Your task to perform on an android device: change text size in settings app Image 0: 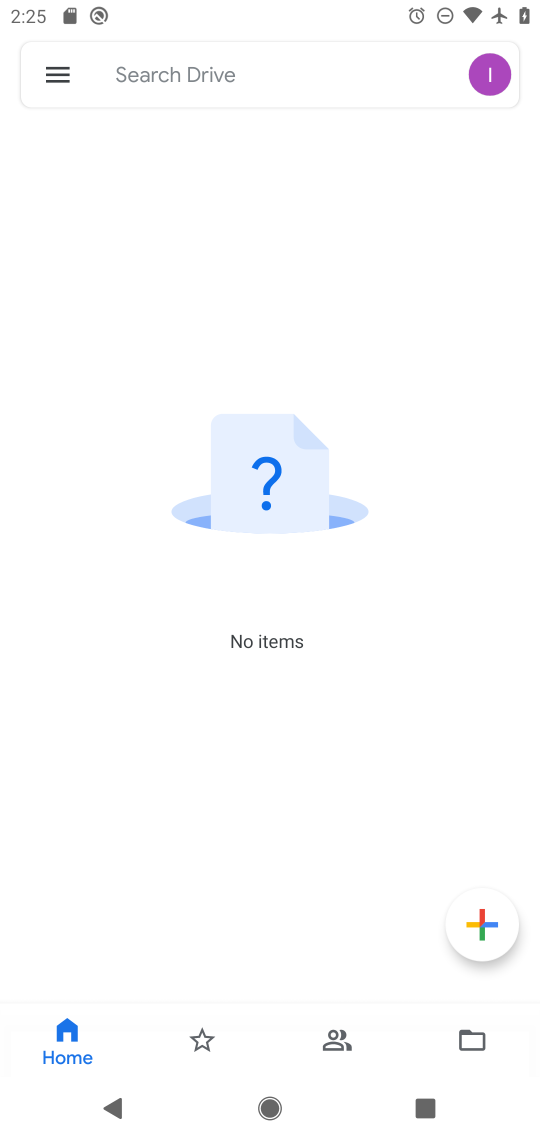
Step 0: press home button
Your task to perform on an android device: change text size in settings app Image 1: 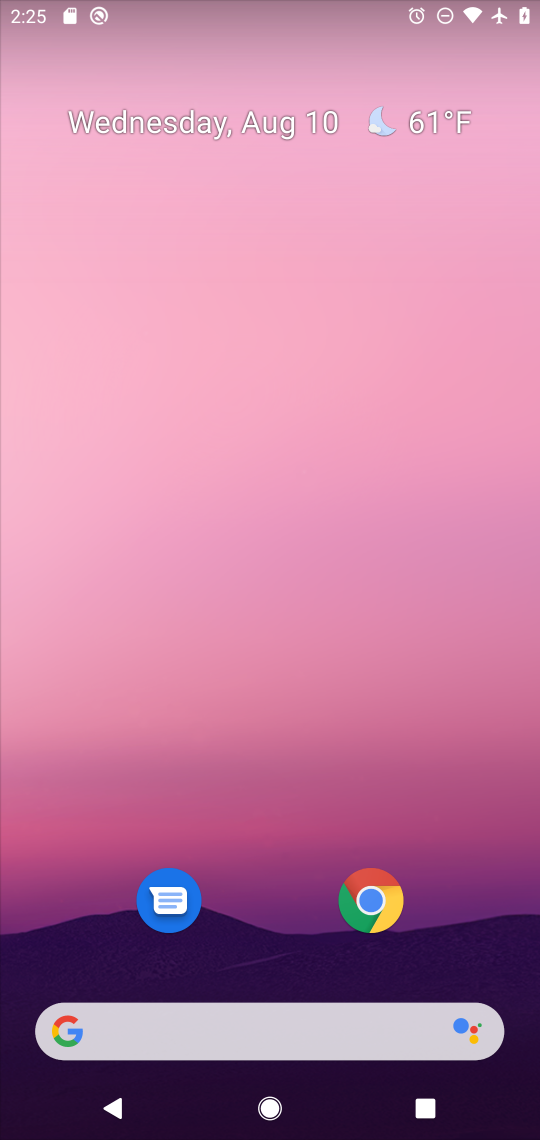
Step 1: drag from (268, 843) to (231, 4)
Your task to perform on an android device: change text size in settings app Image 2: 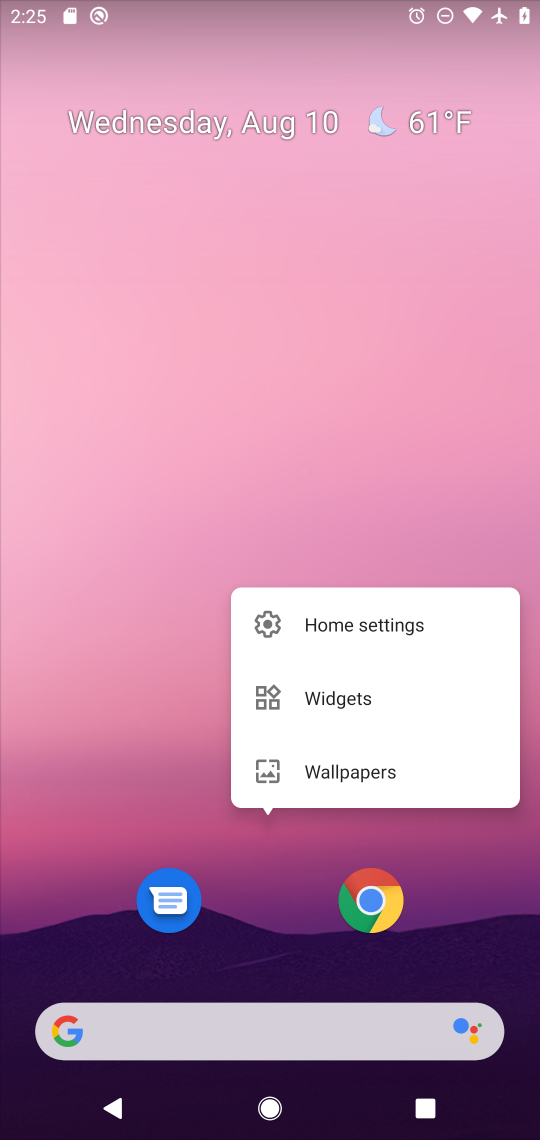
Step 2: click (204, 385)
Your task to perform on an android device: change text size in settings app Image 3: 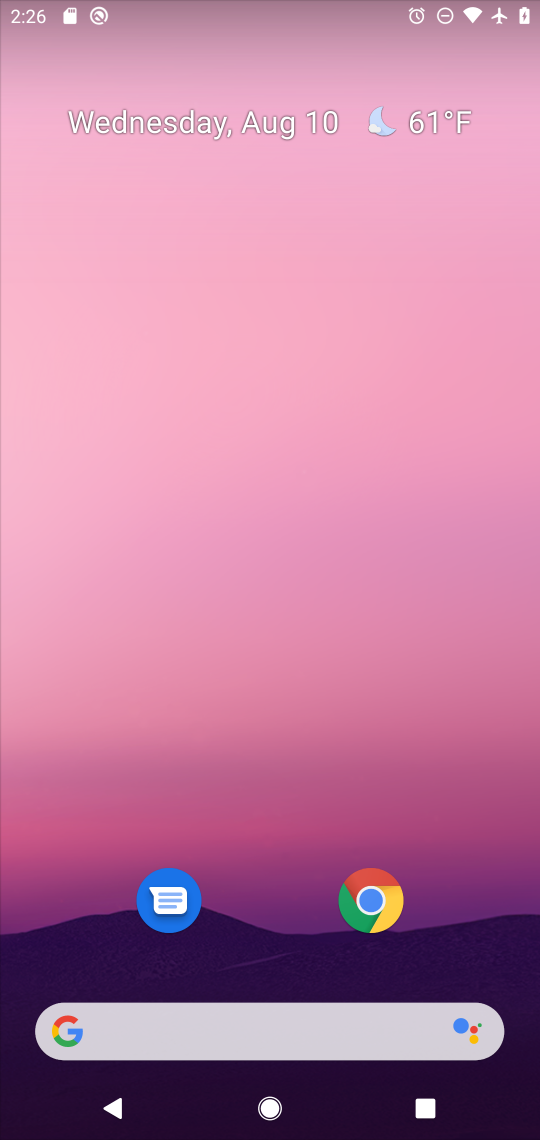
Step 3: drag from (242, 903) to (306, 0)
Your task to perform on an android device: change text size in settings app Image 4: 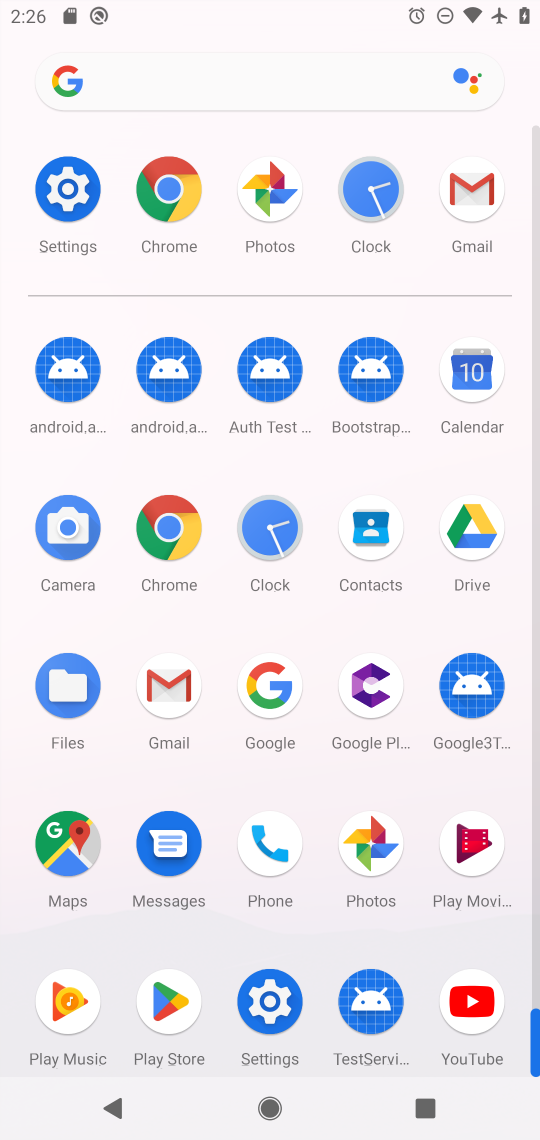
Step 4: click (76, 184)
Your task to perform on an android device: change text size in settings app Image 5: 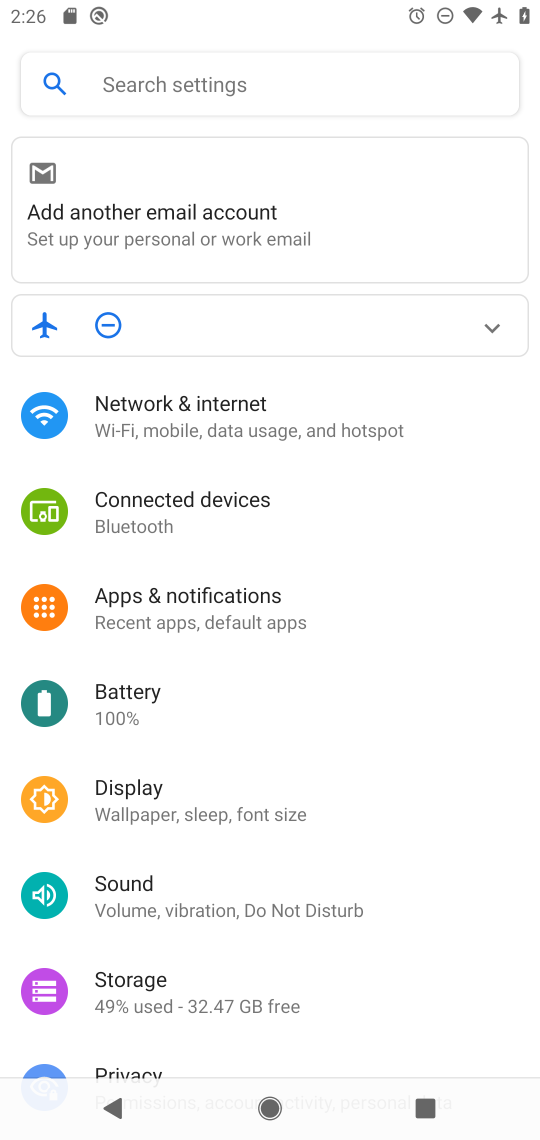
Step 5: click (162, 799)
Your task to perform on an android device: change text size in settings app Image 6: 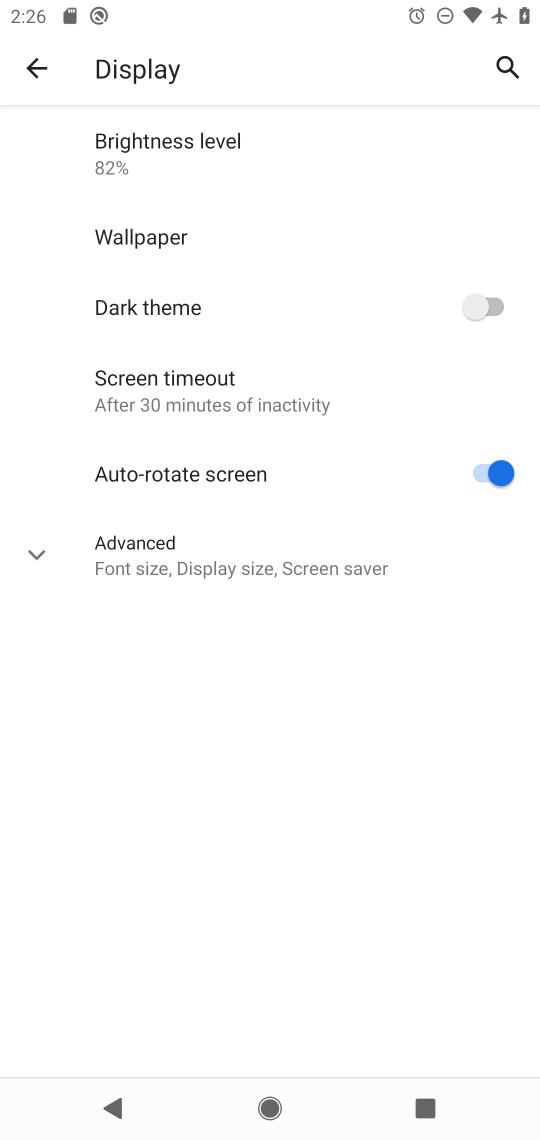
Step 6: click (33, 552)
Your task to perform on an android device: change text size in settings app Image 7: 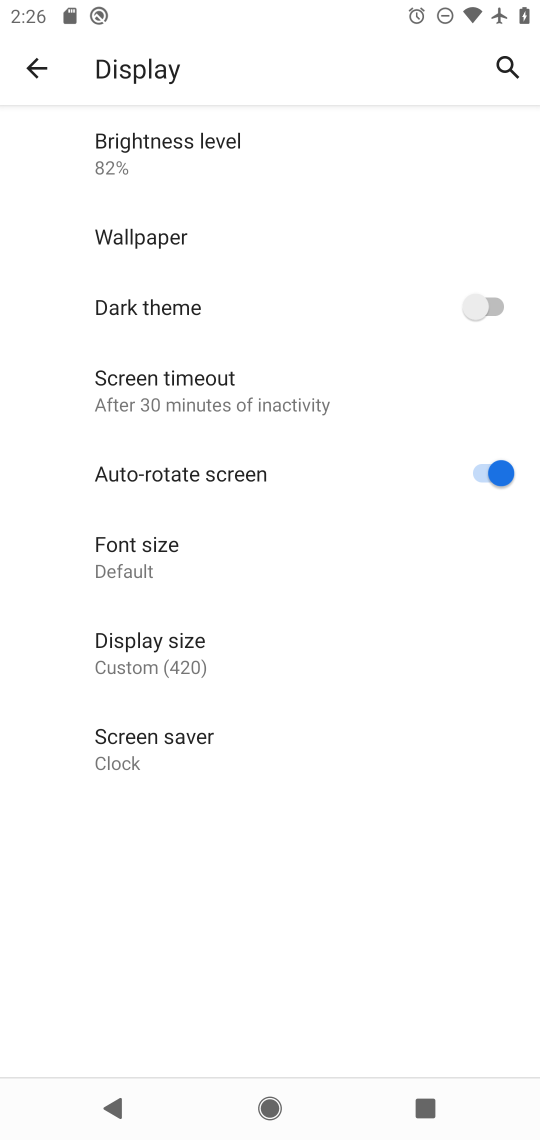
Step 7: click (119, 560)
Your task to perform on an android device: change text size in settings app Image 8: 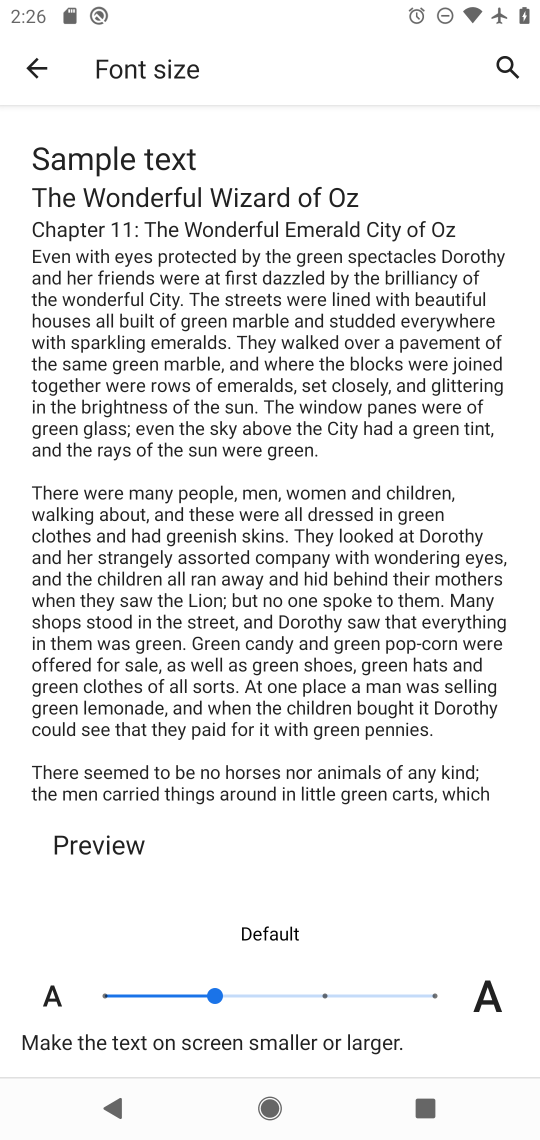
Step 8: click (315, 984)
Your task to perform on an android device: change text size in settings app Image 9: 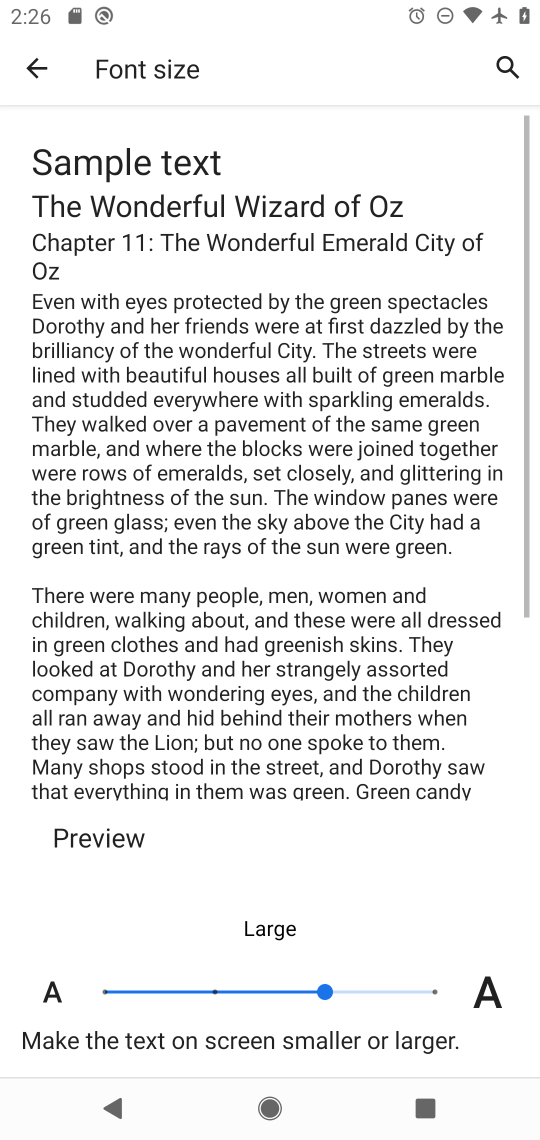
Step 9: click (35, 66)
Your task to perform on an android device: change text size in settings app Image 10: 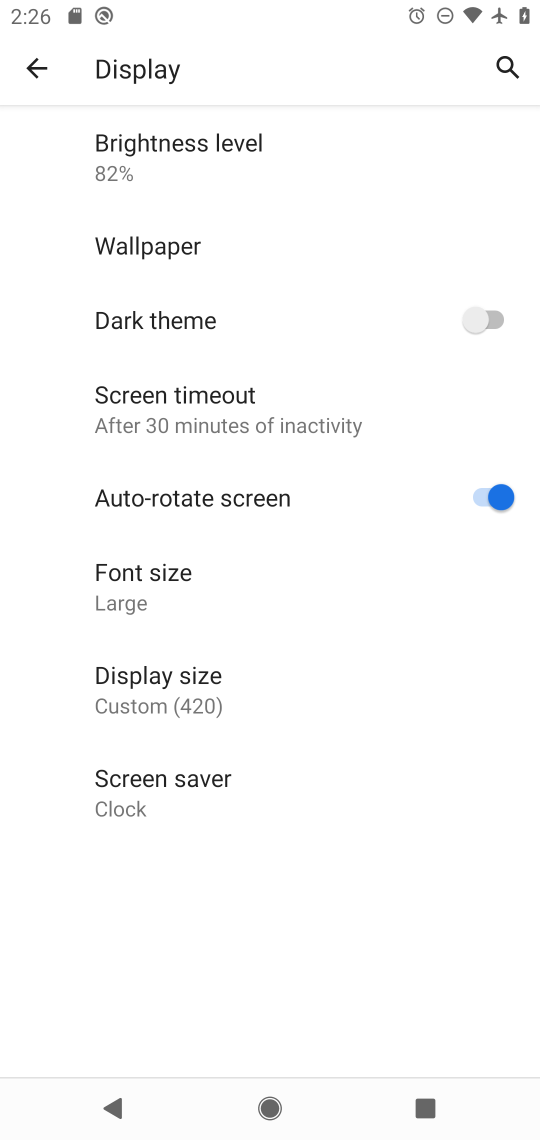
Step 10: task complete